Your task to perform on an android device: Add alienware area 51 to the cart on target, then select checkout. Image 0: 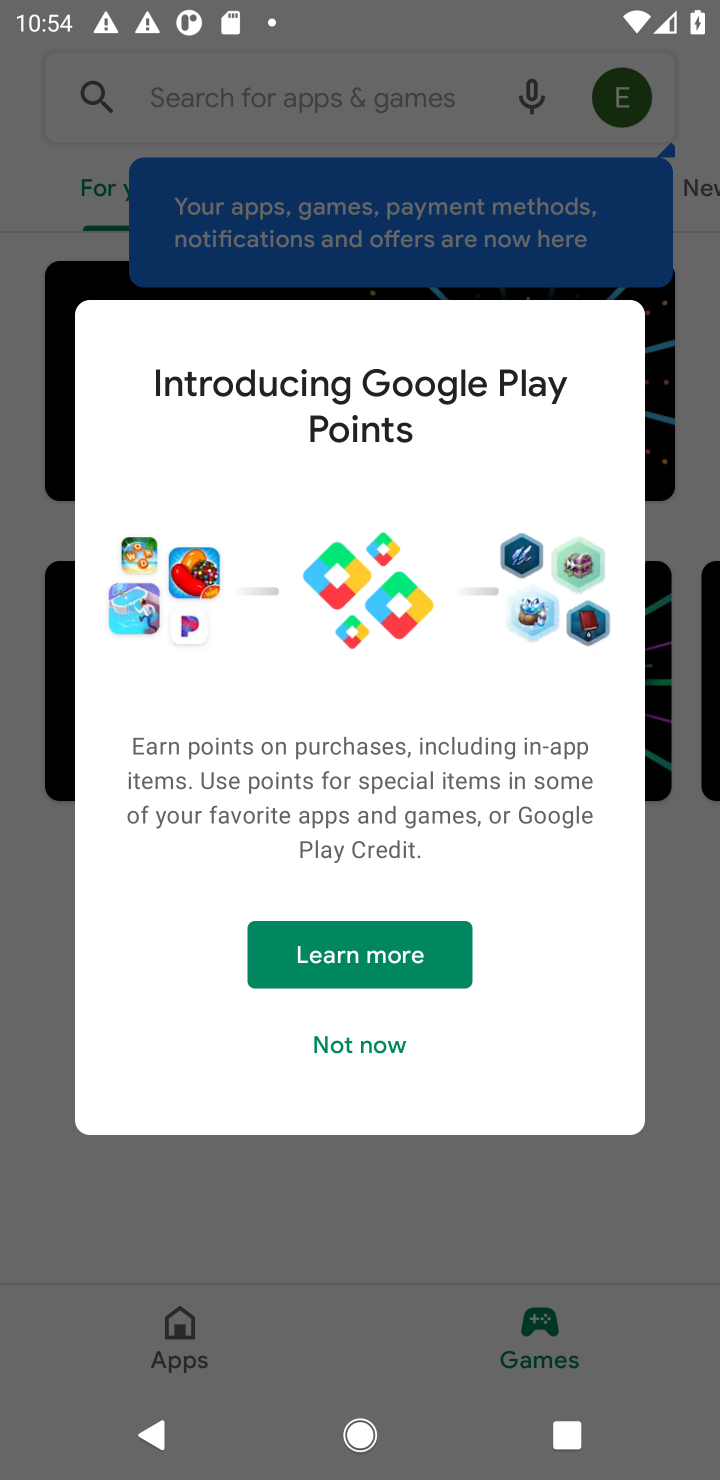
Step 0: press home button
Your task to perform on an android device: Add alienware area 51 to the cart on target, then select checkout. Image 1: 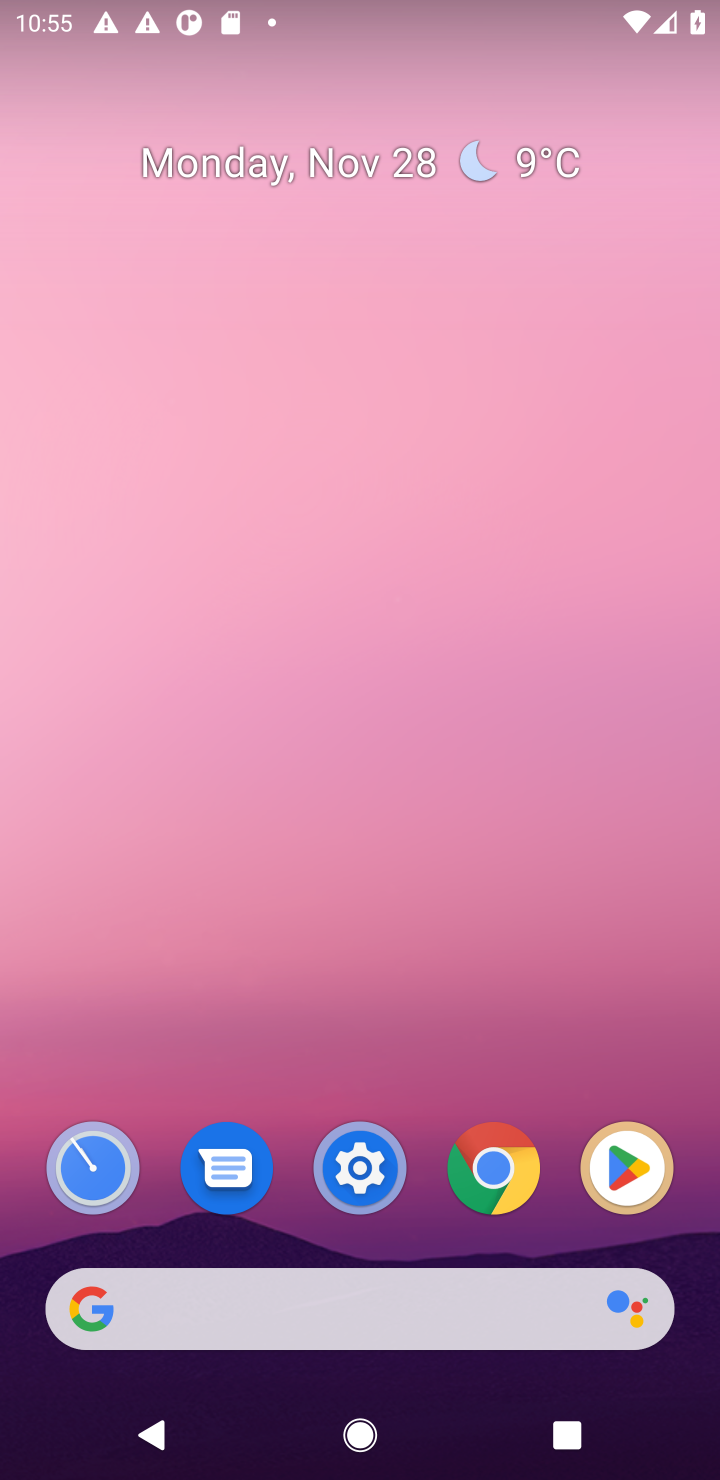
Step 1: click (417, 1326)
Your task to perform on an android device: Add alienware area 51 to the cart on target, then select checkout. Image 2: 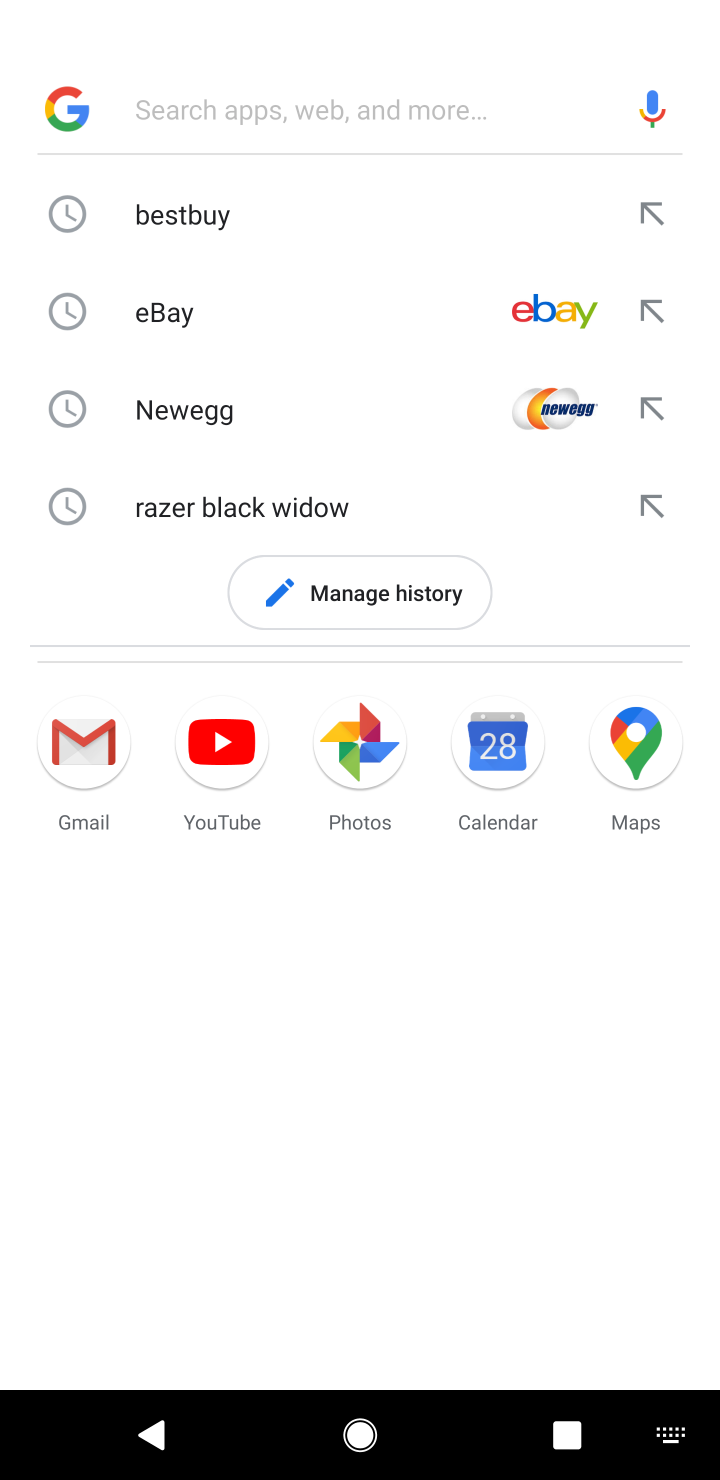
Step 2: type "target.com"
Your task to perform on an android device: Add alienware area 51 to the cart on target, then select checkout. Image 3: 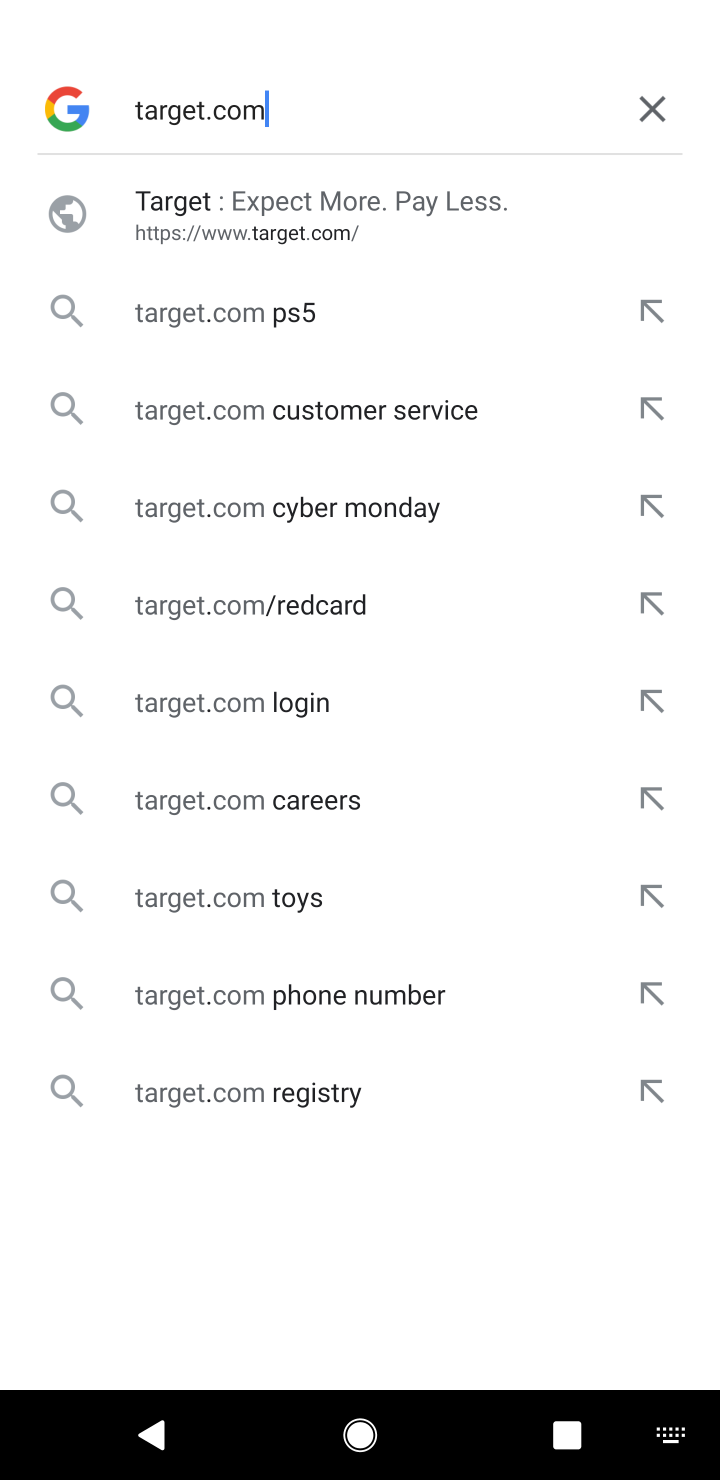
Step 3: click (341, 203)
Your task to perform on an android device: Add alienware area 51 to the cart on target, then select checkout. Image 4: 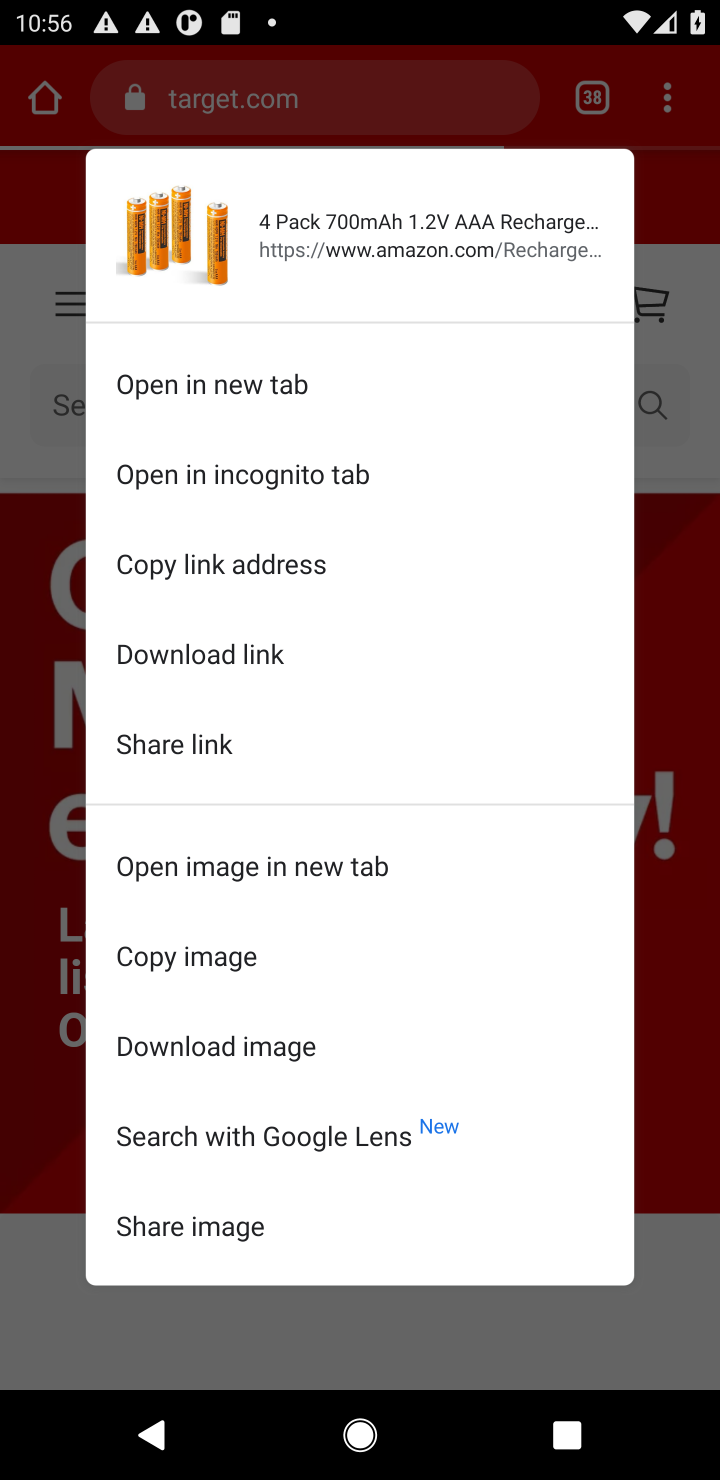
Step 4: task complete